Your task to perform on an android device: What's the news this month? Image 0: 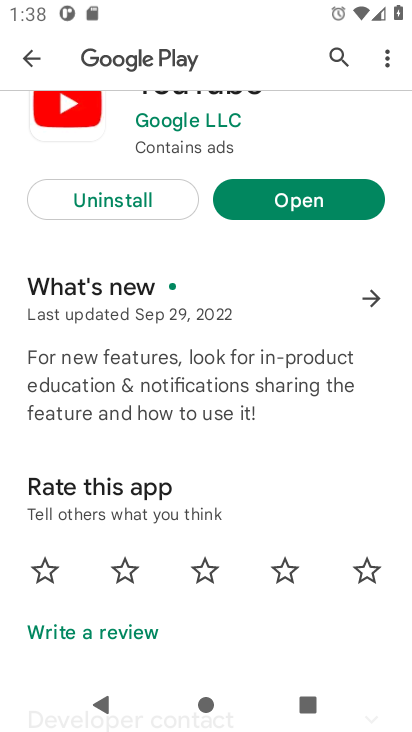
Step 0: press home button
Your task to perform on an android device: What's the news this month? Image 1: 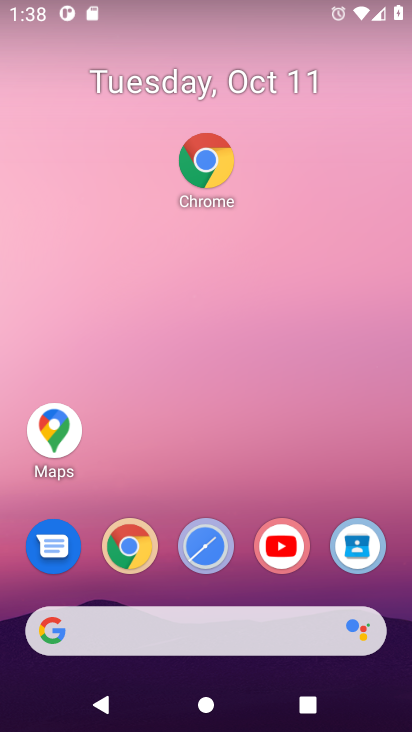
Step 1: click (114, 543)
Your task to perform on an android device: What's the news this month? Image 2: 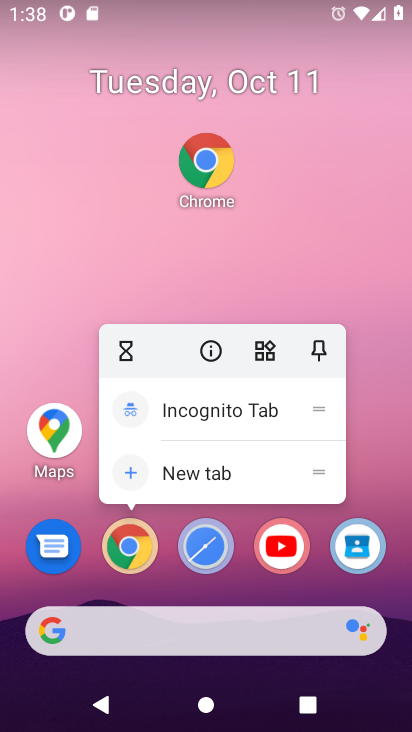
Step 2: click (133, 544)
Your task to perform on an android device: What's the news this month? Image 3: 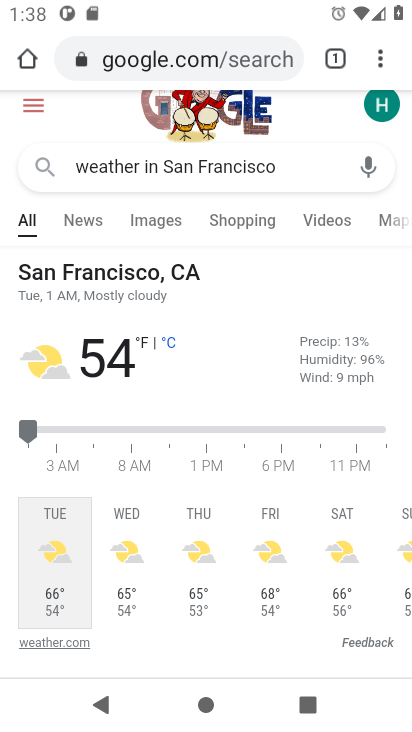
Step 3: click (217, 61)
Your task to perform on an android device: What's the news this month? Image 4: 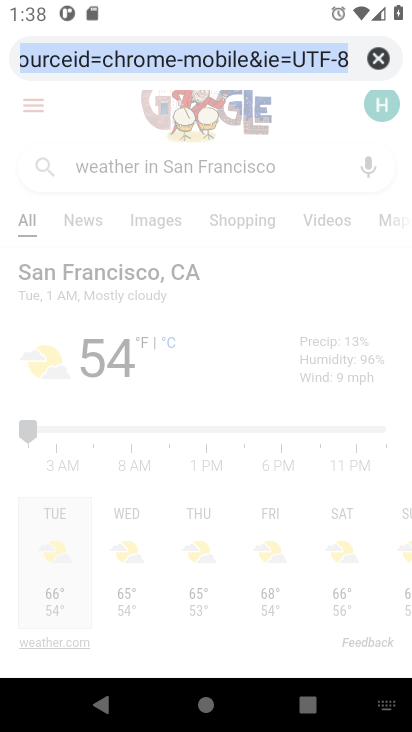
Step 4: type "news this month"
Your task to perform on an android device: What's the news this month? Image 5: 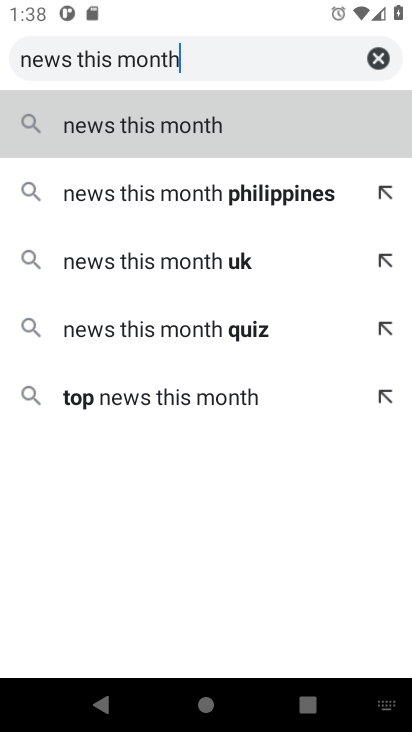
Step 5: type ""
Your task to perform on an android device: What's the news this month? Image 6: 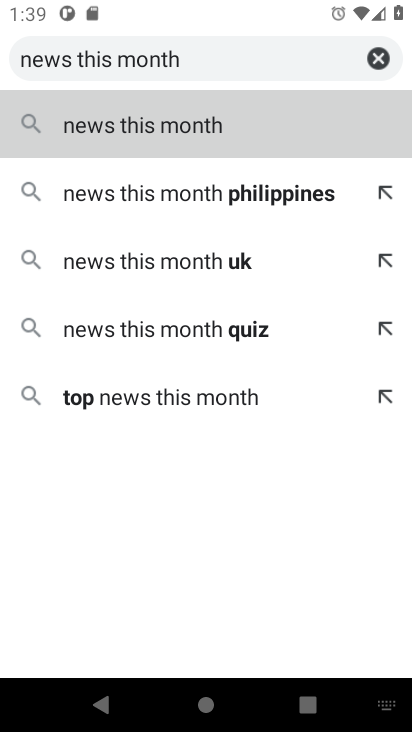
Step 6: press enter
Your task to perform on an android device: What's the news this month? Image 7: 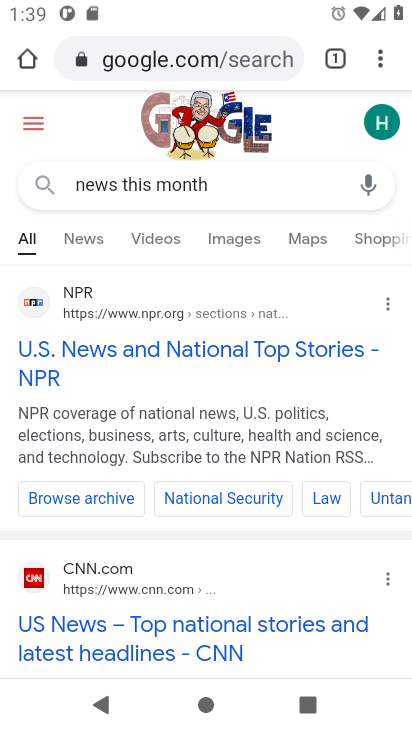
Step 7: click (76, 239)
Your task to perform on an android device: What's the news this month? Image 8: 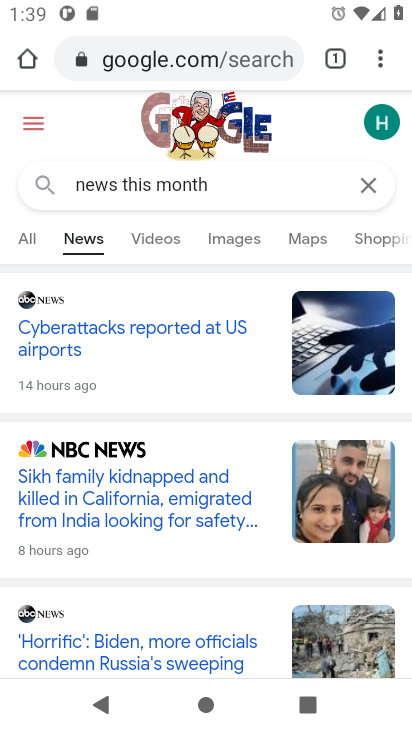
Step 8: task complete